Your task to perform on an android device: turn vacation reply on in the gmail app Image 0: 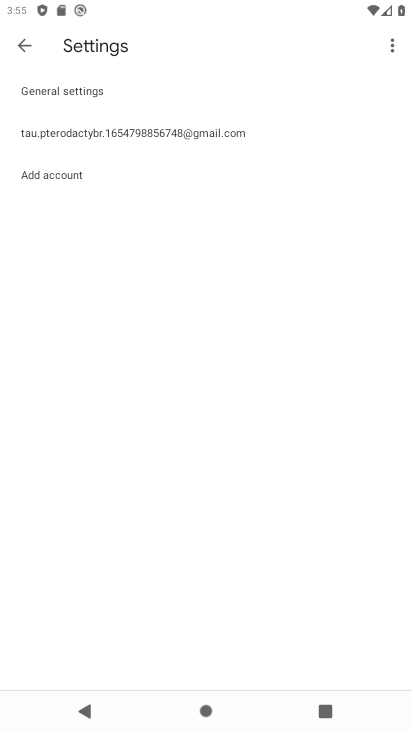
Step 0: click (237, 137)
Your task to perform on an android device: turn vacation reply on in the gmail app Image 1: 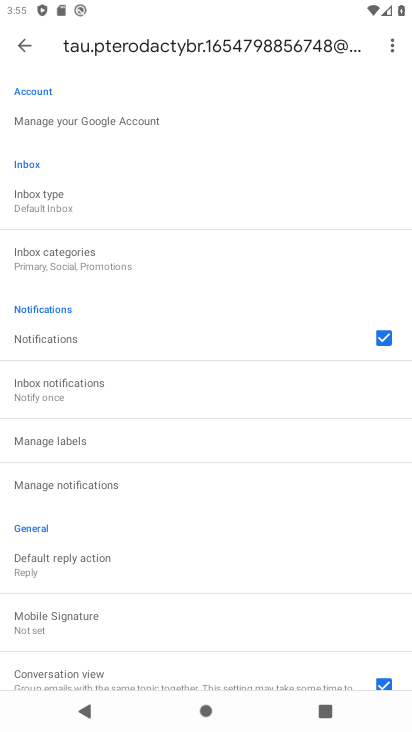
Step 1: task complete